Your task to perform on an android device: Go to calendar. Show me events next week Image 0: 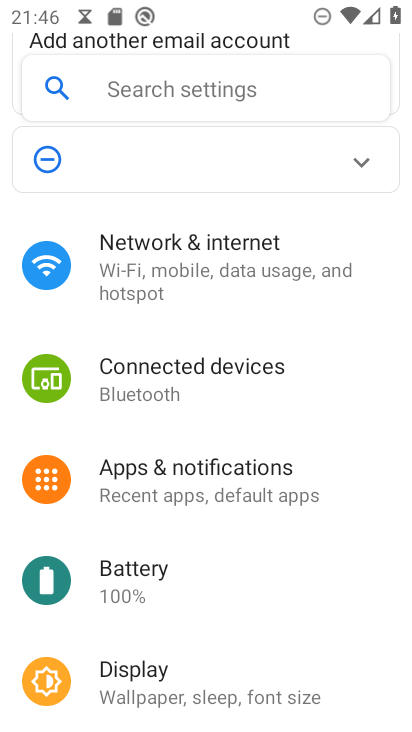
Step 0: press home button
Your task to perform on an android device: Go to calendar. Show me events next week Image 1: 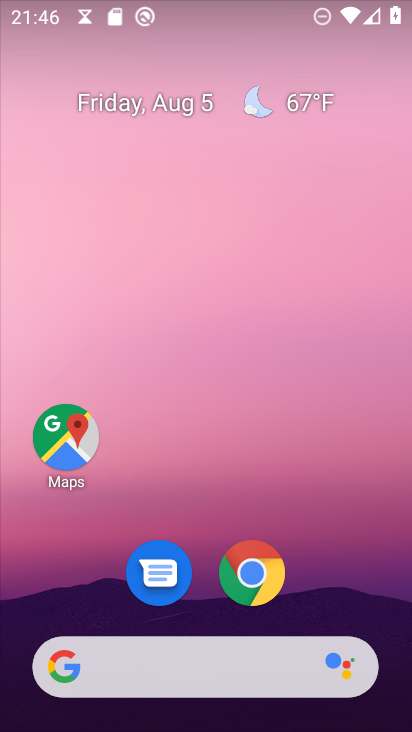
Step 1: drag from (167, 673) to (222, 200)
Your task to perform on an android device: Go to calendar. Show me events next week Image 2: 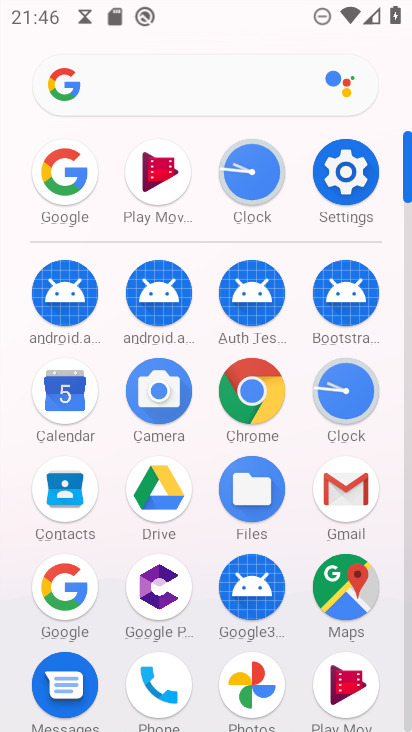
Step 2: click (73, 387)
Your task to perform on an android device: Go to calendar. Show me events next week Image 3: 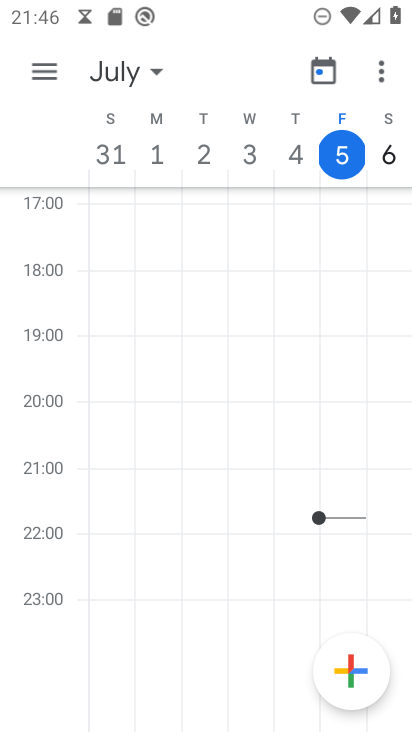
Step 3: click (327, 70)
Your task to perform on an android device: Go to calendar. Show me events next week Image 4: 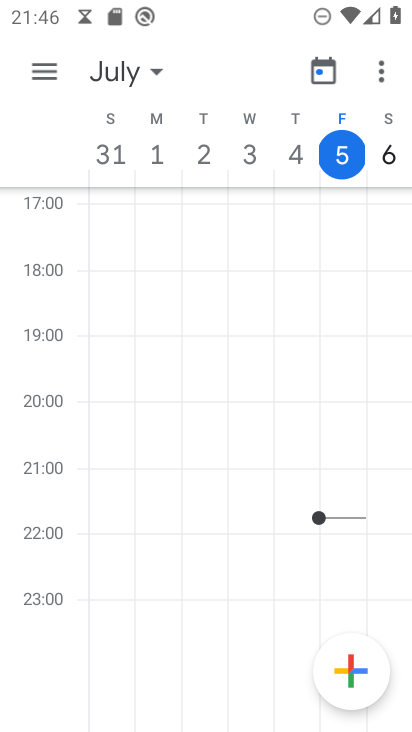
Step 4: click (327, 70)
Your task to perform on an android device: Go to calendar. Show me events next week Image 5: 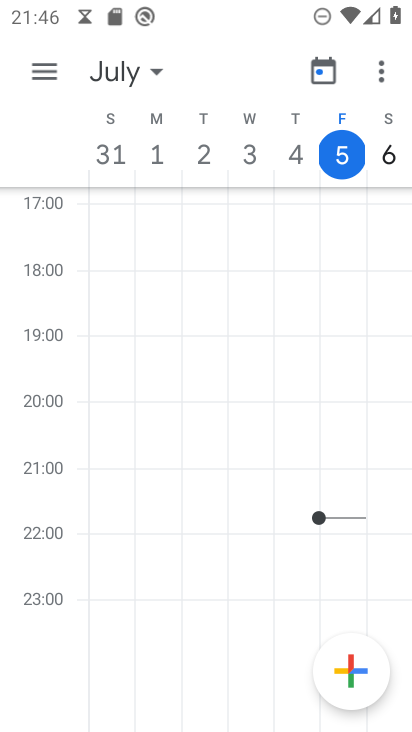
Step 5: click (327, 70)
Your task to perform on an android device: Go to calendar. Show me events next week Image 6: 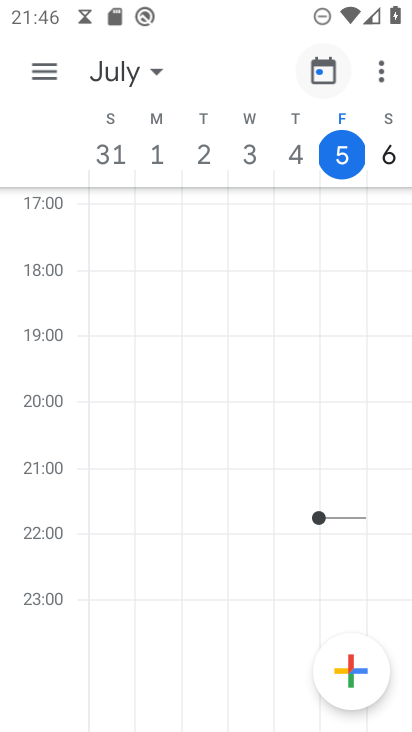
Step 6: click (327, 70)
Your task to perform on an android device: Go to calendar. Show me events next week Image 7: 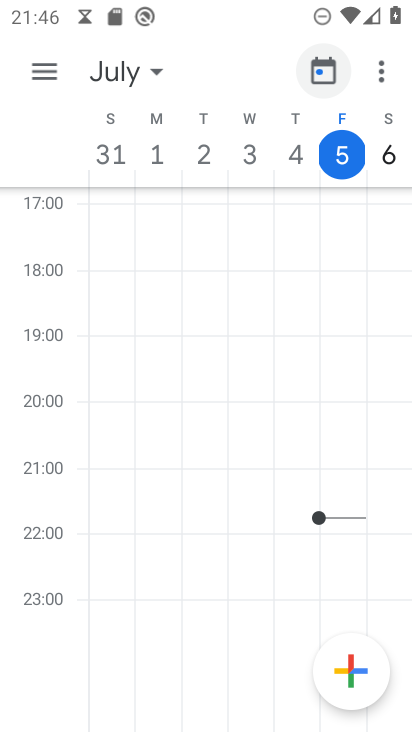
Step 7: click (327, 70)
Your task to perform on an android device: Go to calendar. Show me events next week Image 8: 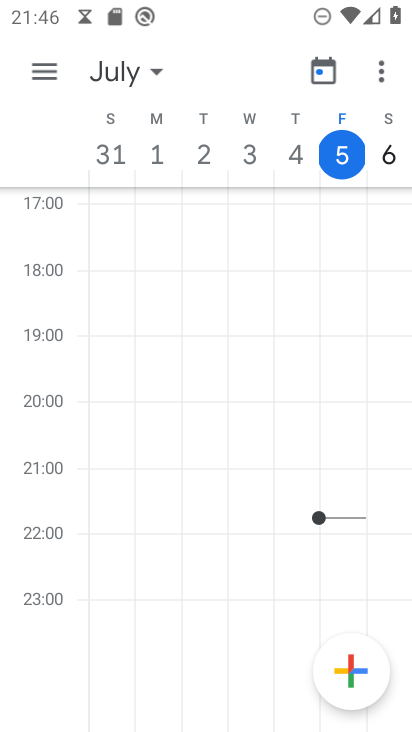
Step 8: click (164, 76)
Your task to perform on an android device: Go to calendar. Show me events next week Image 9: 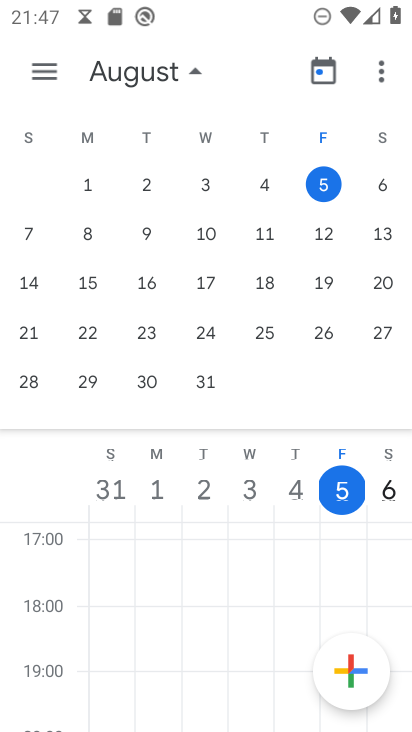
Step 9: click (144, 236)
Your task to perform on an android device: Go to calendar. Show me events next week Image 10: 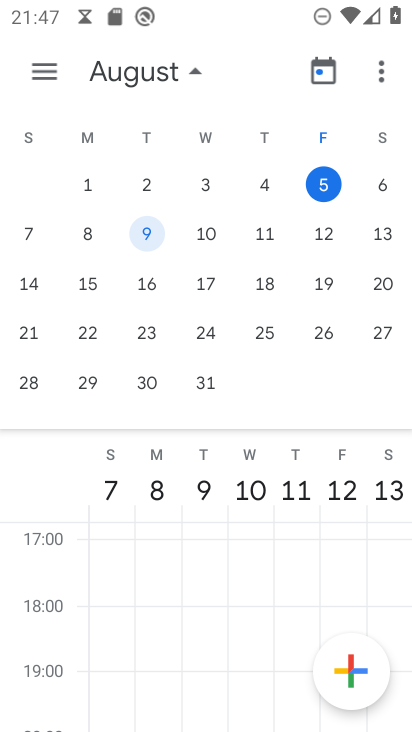
Step 10: click (45, 74)
Your task to perform on an android device: Go to calendar. Show me events next week Image 11: 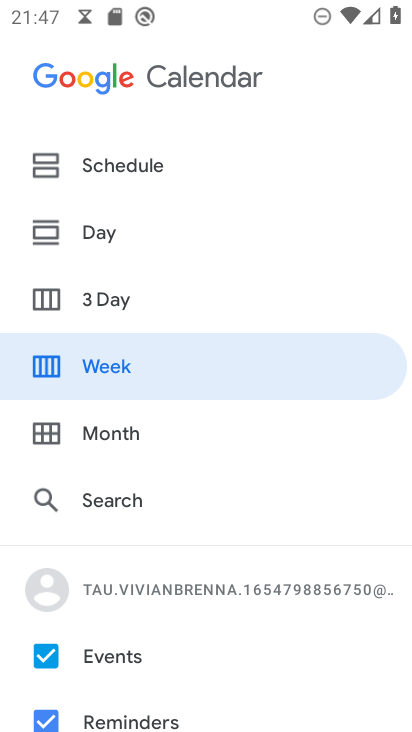
Step 11: click (106, 352)
Your task to perform on an android device: Go to calendar. Show me events next week Image 12: 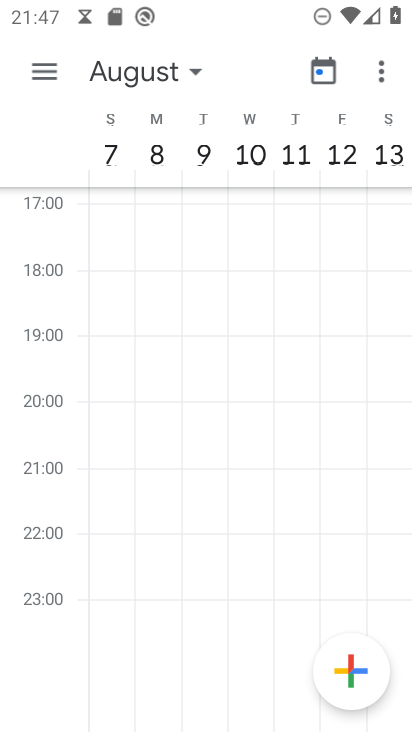
Step 12: task complete